Your task to perform on an android device: Turn off the flashlight Image 0: 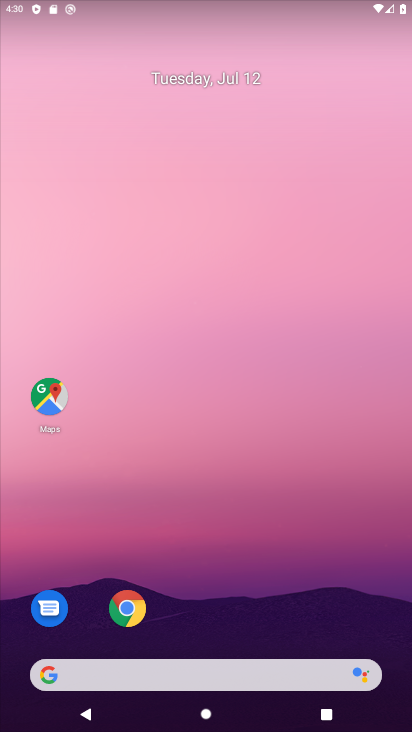
Step 0: drag from (177, 619) to (201, 18)
Your task to perform on an android device: Turn off the flashlight Image 1: 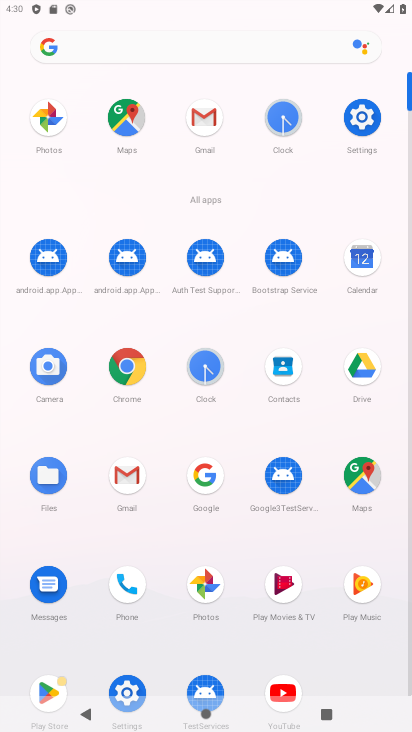
Step 1: click (136, 684)
Your task to perform on an android device: Turn off the flashlight Image 2: 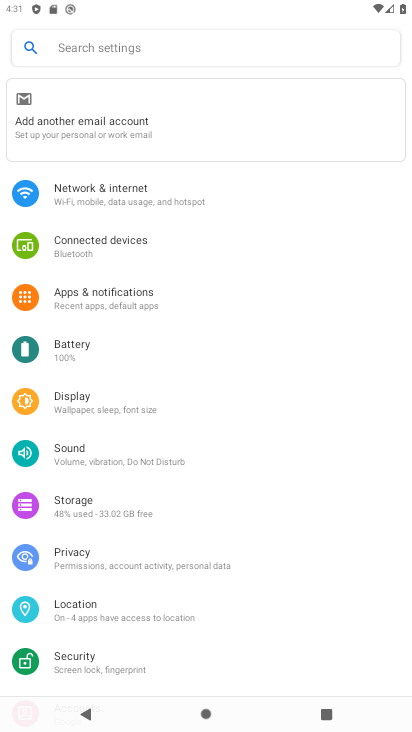
Step 2: task complete